Your task to perform on an android device: Open the web browser Image 0: 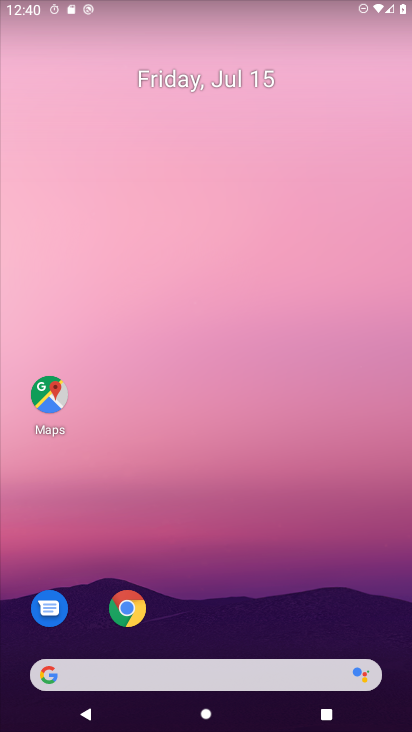
Step 0: drag from (165, 664) to (234, 122)
Your task to perform on an android device: Open the web browser Image 1: 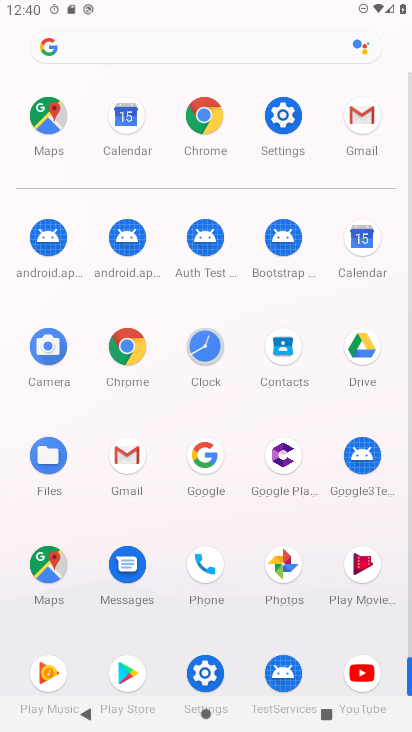
Step 1: click (133, 349)
Your task to perform on an android device: Open the web browser Image 2: 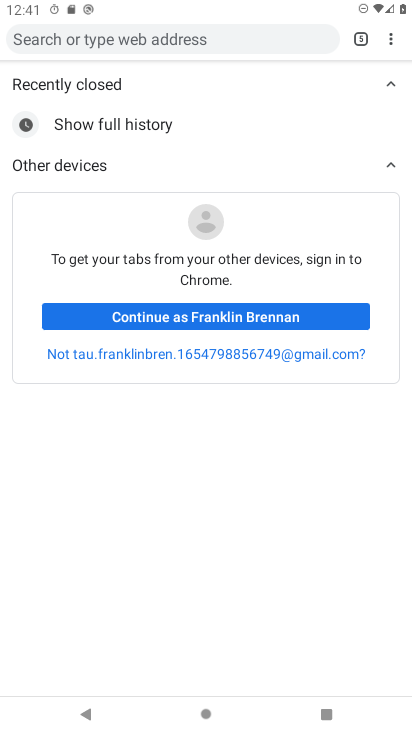
Step 2: task complete